Your task to perform on an android device: check battery use Image 0: 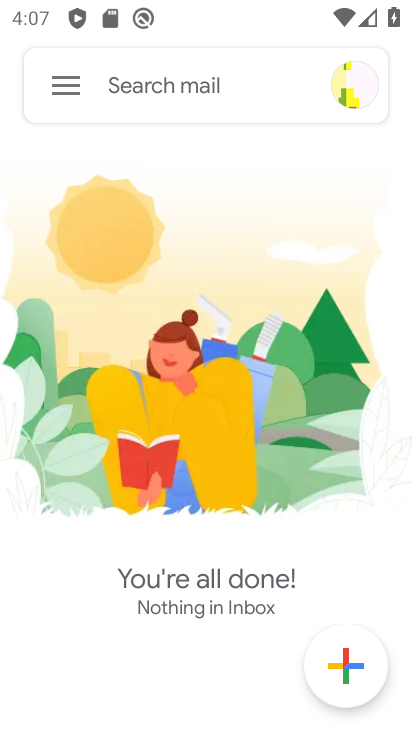
Step 0: press back button
Your task to perform on an android device: check battery use Image 1: 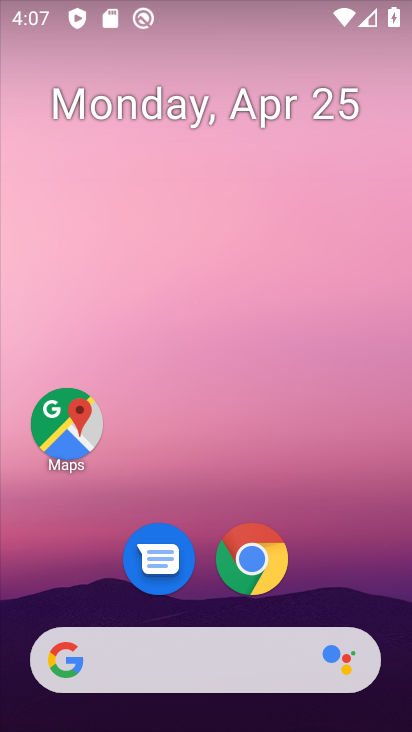
Step 1: drag from (321, 495) to (260, 70)
Your task to perform on an android device: check battery use Image 2: 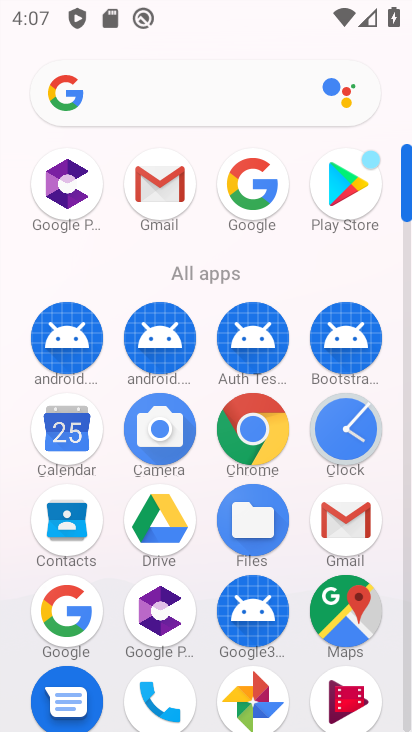
Step 2: drag from (200, 490) to (260, 251)
Your task to perform on an android device: check battery use Image 3: 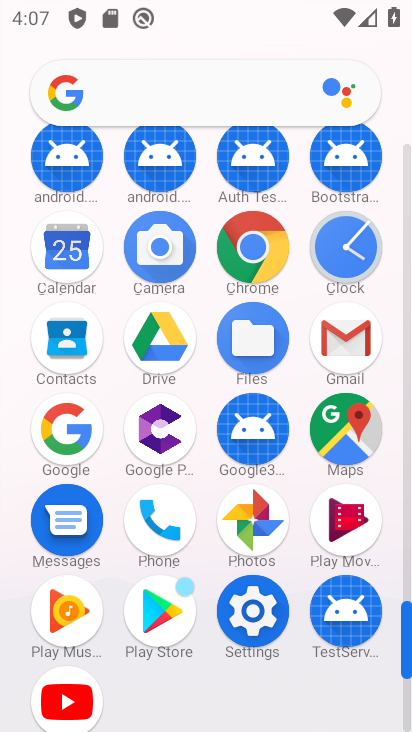
Step 3: click (255, 611)
Your task to perform on an android device: check battery use Image 4: 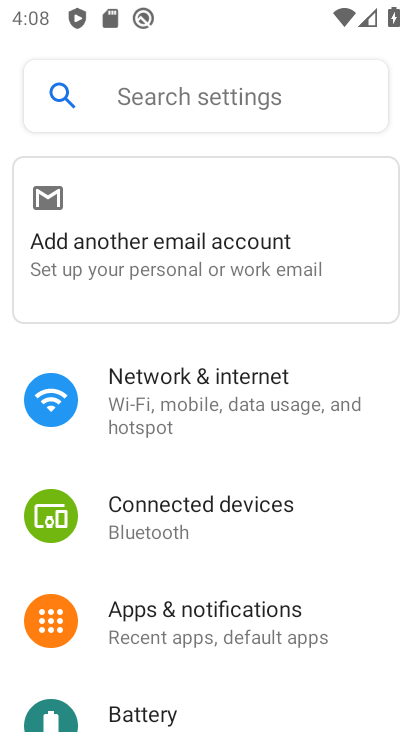
Step 4: drag from (236, 565) to (227, 435)
Your task to perform on an android device: check battery use Image 5: 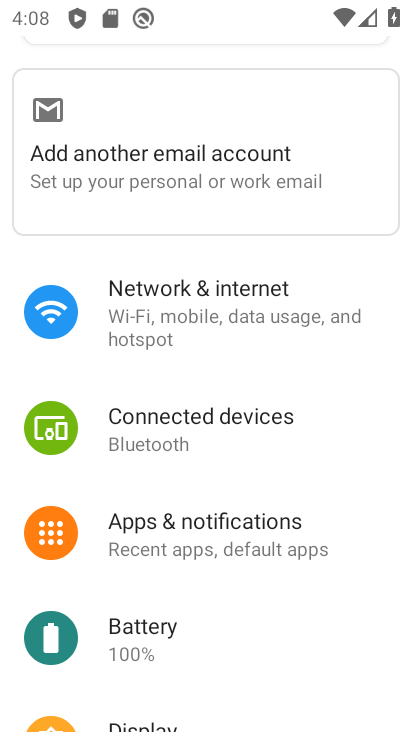
Step 5: drag from (168, 527) to (211, 440)
Your task to perform on an android device: check battery use Image 6: 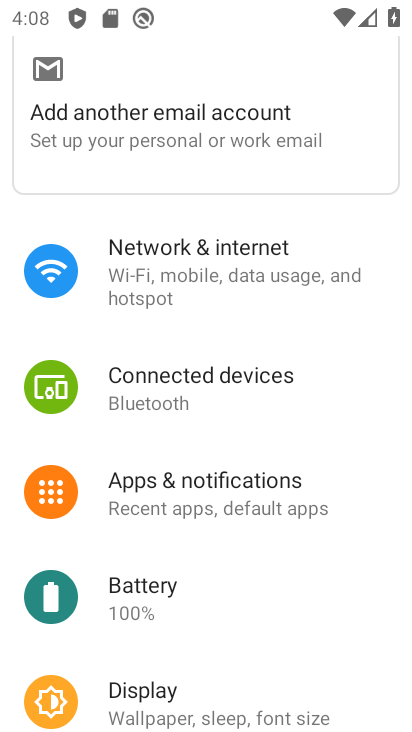
Step 6: drag from (173, 618) to (228, 471)
Your task to perform on an android device: check battery use Image 7: 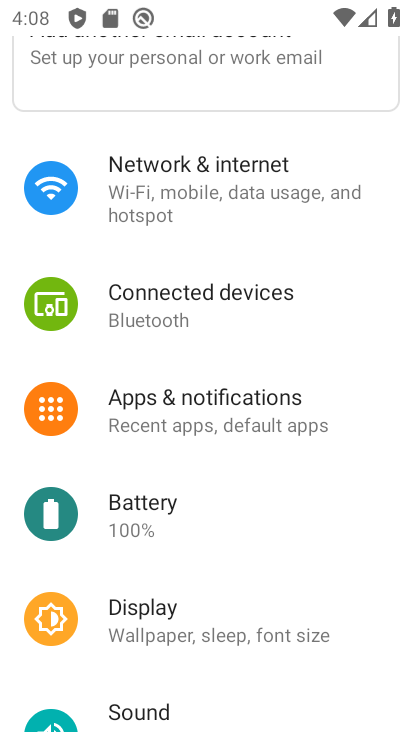
Step 7: drag from (183, 542) to (239, 424)
Your task to perform on an android device: check battery use Image 8: 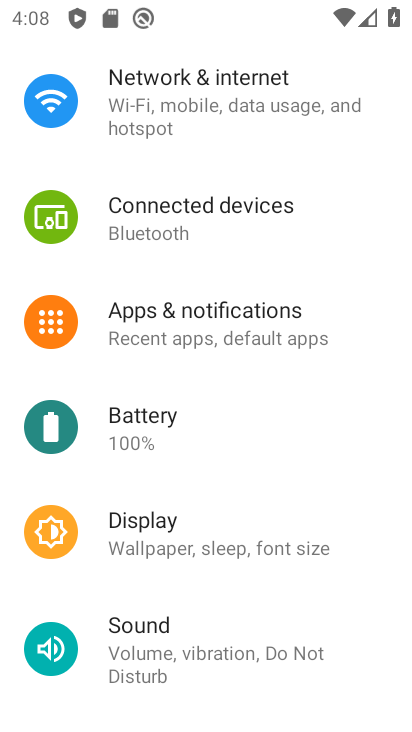
Step 8: click (157, 423)
Your task to perform on an android device: check battery use Image 9: 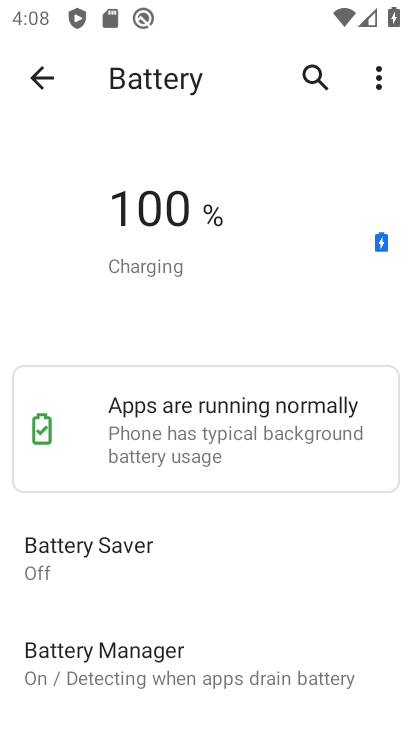
Step 9: click (379, 77)
Your task to perform on an android device: check battery use Image 10: 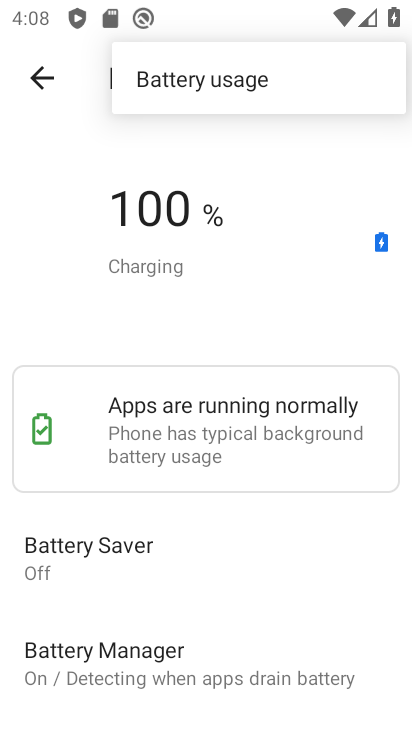
Step 10: click (242, 75)
Your task to perform on an android device: check battery use Image 11: 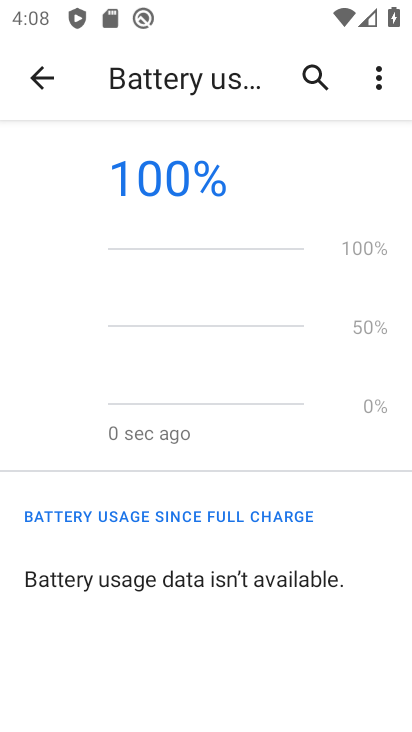
Step 11: task complete